Your task to perform on an android device: Open network settings Image 0: 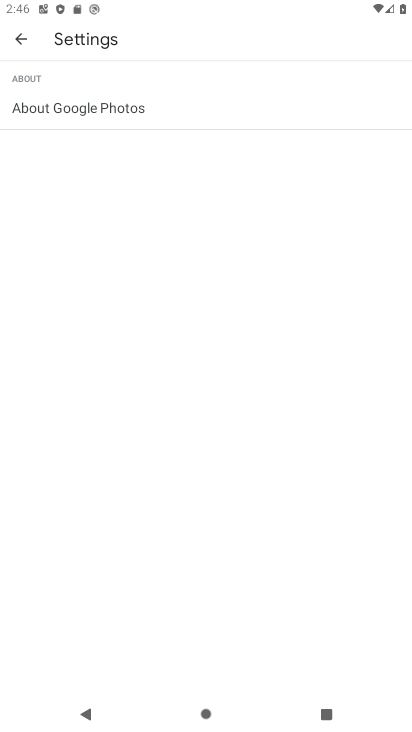
Step 0: press home button
Your task to perform on an android device: Open network settings Image 1: 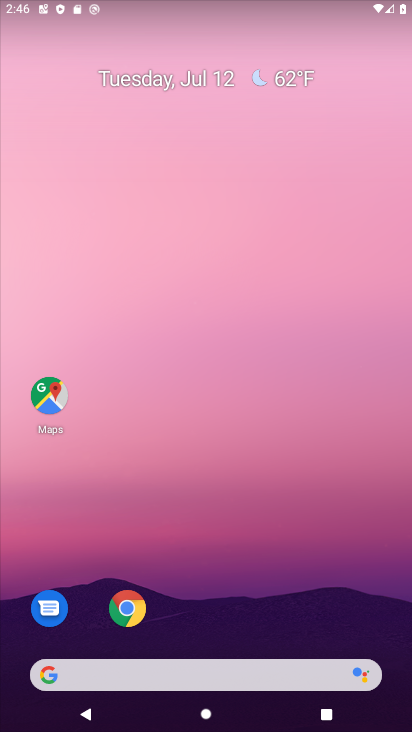
Step 1: drag from (125, 670) to (305, 100)
Your task to perform on an android device: Open network settings Image 2: 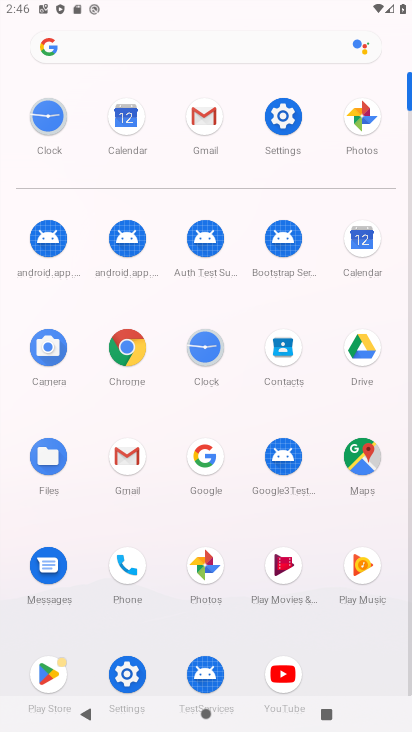
Step 2: click (284, 120)
Your task to perform on an android device: Open network settings Image 3: 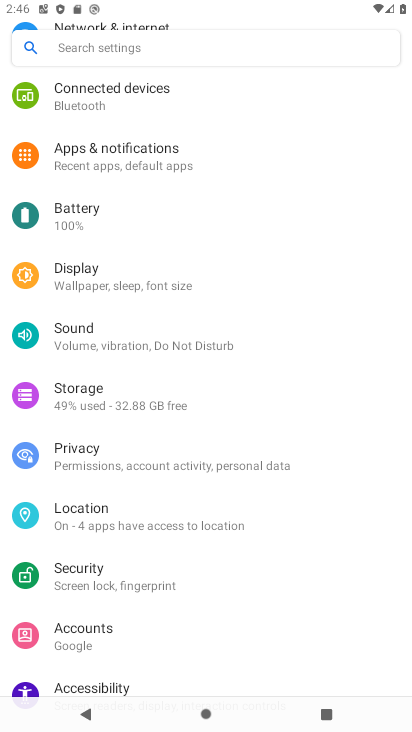
Step 3: drag from (233, 113) to (223, 479)
Your task to perform on an android device: Open network settings Image 4: 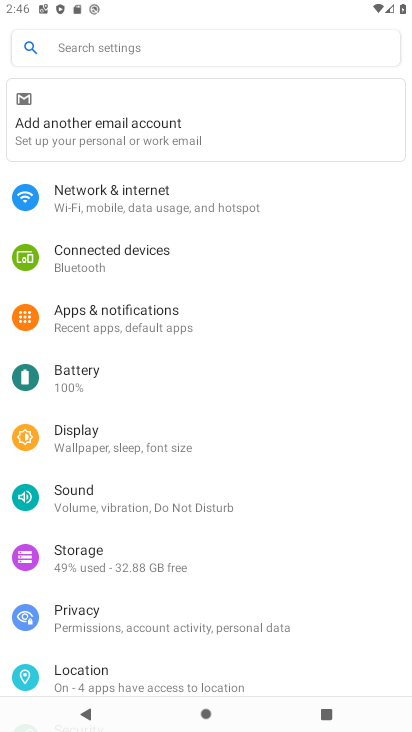
Step 4: click (152, 193)
Your task to perform on an android device: Open network settings Image 5: 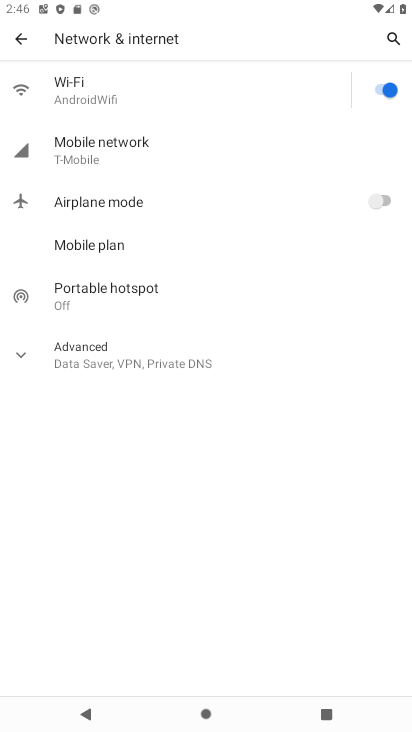
Step 5: click (138, 146)
Your task to perform on an android device: Open network settings Image 6: 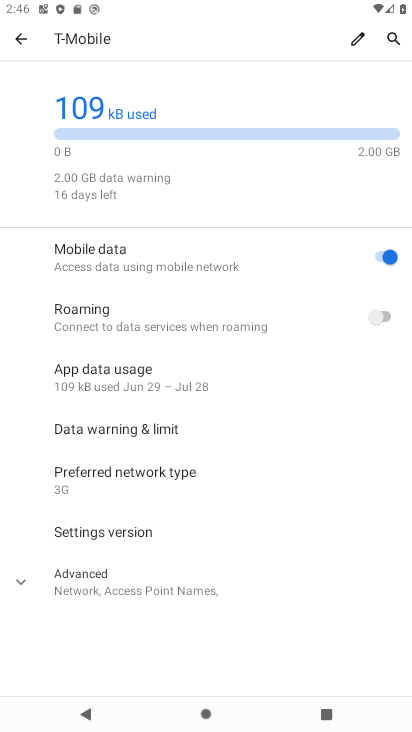
Step 6: task complete